Your task to perform on an android device: turn on improve location accuracy Image 0: 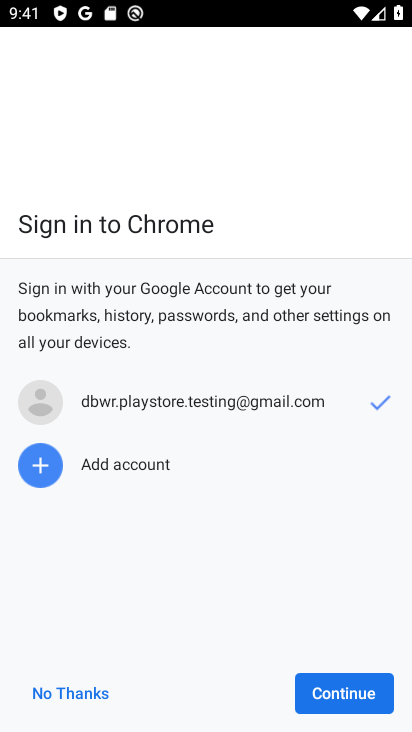
Step 0: press back button
Your task to perform on an android device: turn on improve location accuracy Image 1: 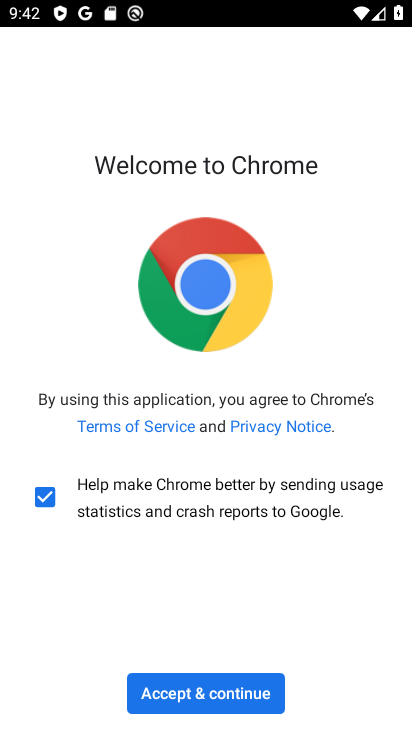
Step 1: press back button
Your task to perform on an android device: turn on improve location accuracy Image 2: 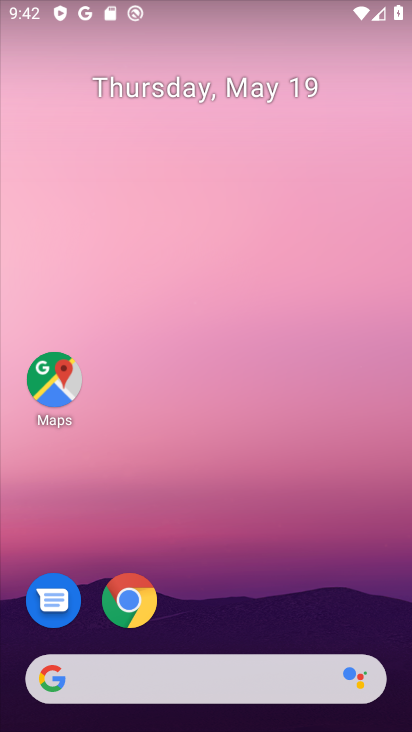
Step 2: drag from (254, 591) to (212, 12)
Your task to perform on an android device: turn on improve location accuracy Image 3: 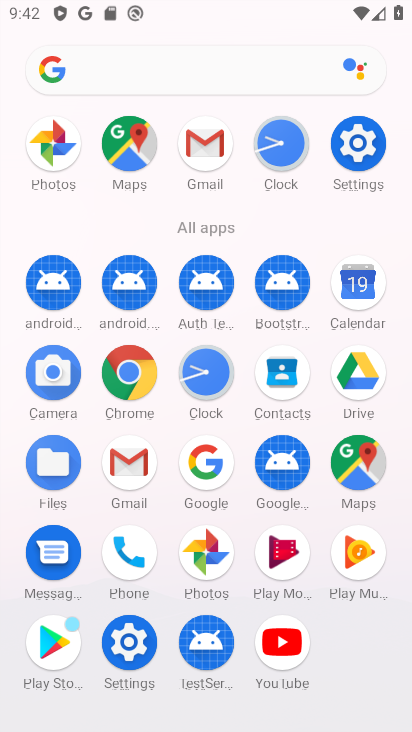
Step 3: click (129, 640)
Your task to perform on an android device: turn on improve location accuracy Image 4: 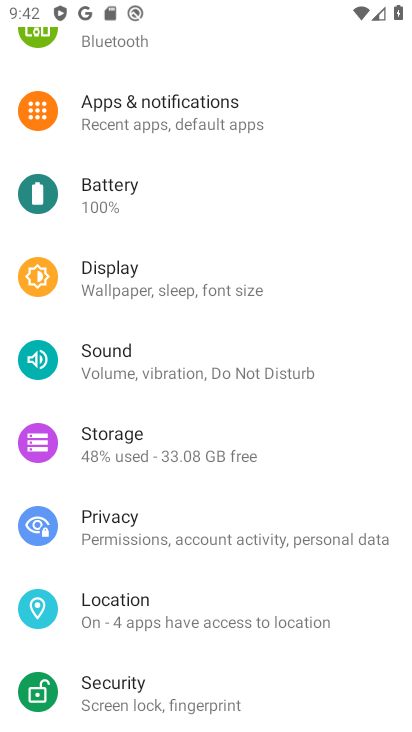
Step 4: click (142, 586)
Your task to perform on an android device: turn on improve location accuracy Image 5: 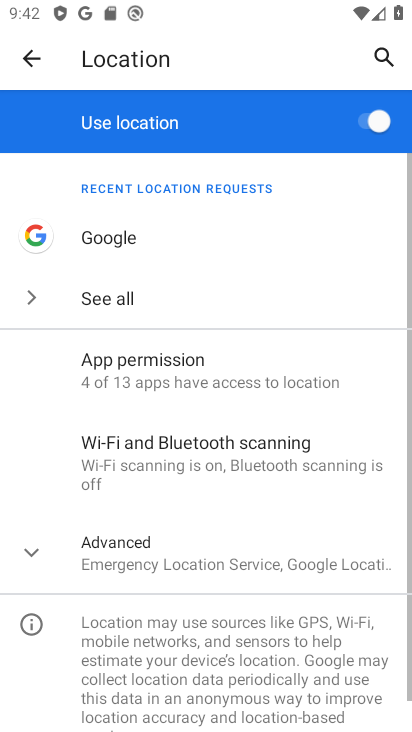
Step 5: click (93, 566)
Your task to perform on an android device: turn on improve location accuracy Image 6: 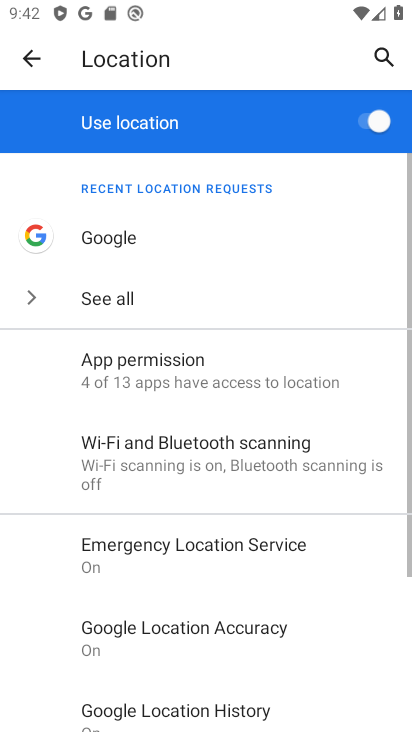
Step 6: drag from (172, 559) to (219, 185)
Your task to perform on an android device: turn on improve location accuracy Image 7: 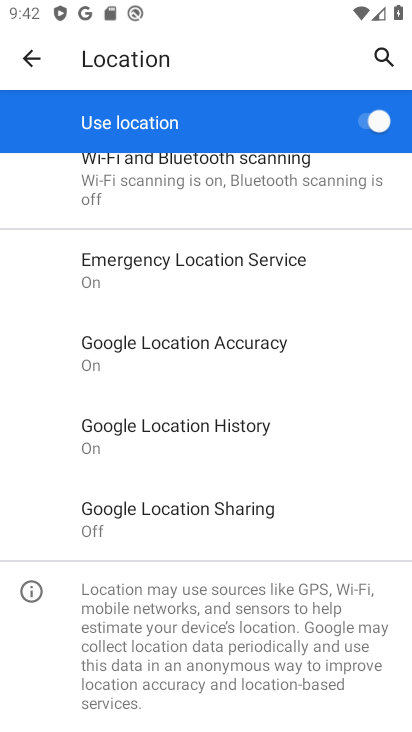
Step 7: click (226, 340)
Your task to perform on an android device: turn on improve location accuracy Image 8: 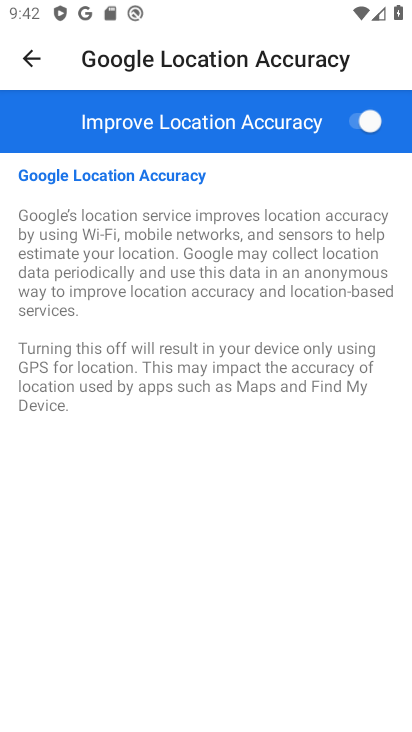
Step 8: task complete